Your task to perform on an android device: open a new tab in the chrome app Image 0: 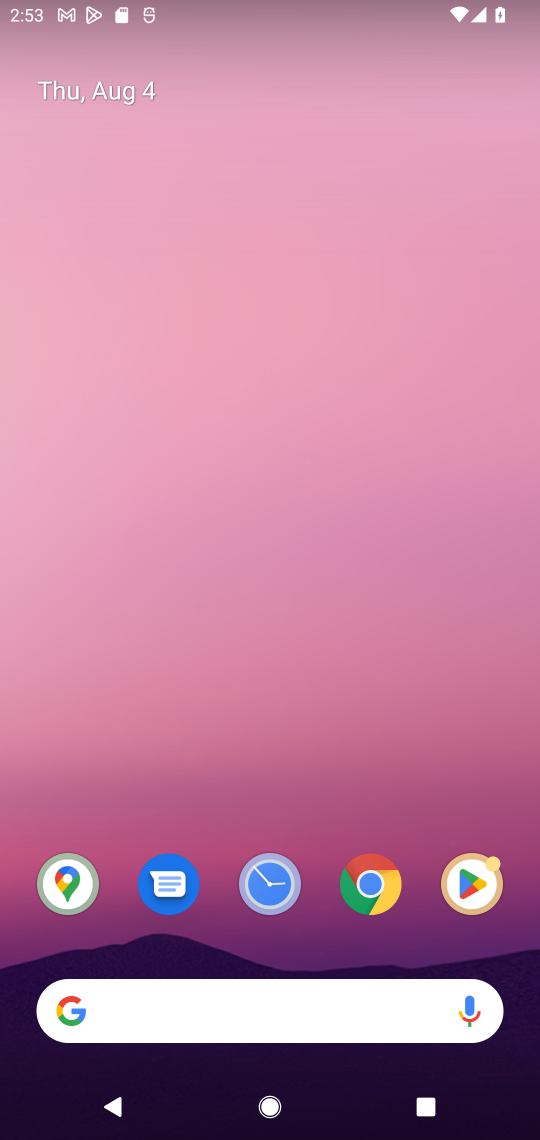
Step 0: click (361, 880)
Your task to perform on an android device: open a new tab in the chrome app Image 1: 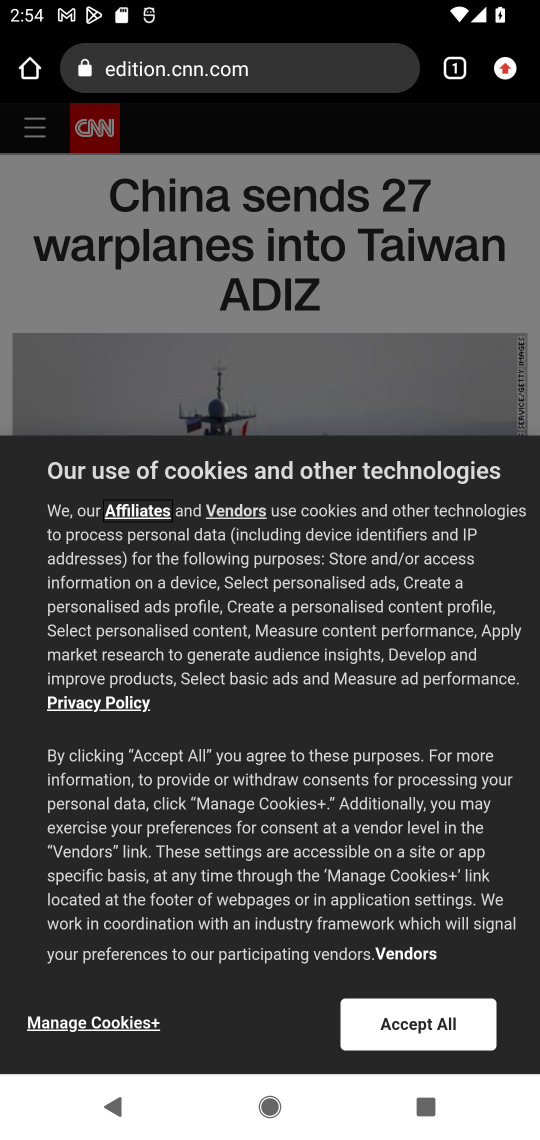
Step 1: click (497, 64)
Your task to perform on an android device: open a new tab in the chrome app Image 2: 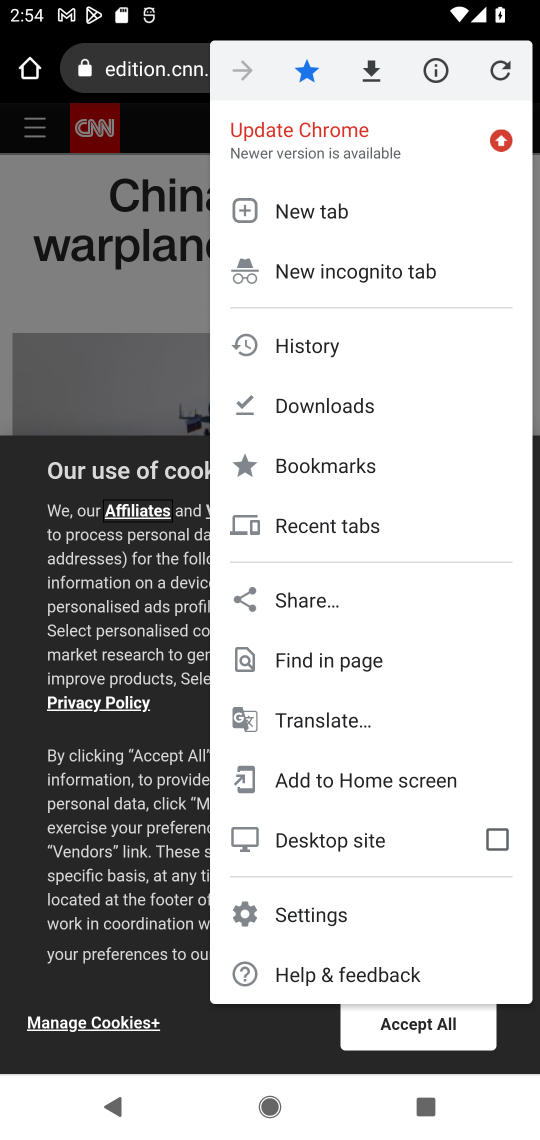
Step 2: click (346, 214)
Your task to perform on an android device: open a new tab in the chrome app Image 3: 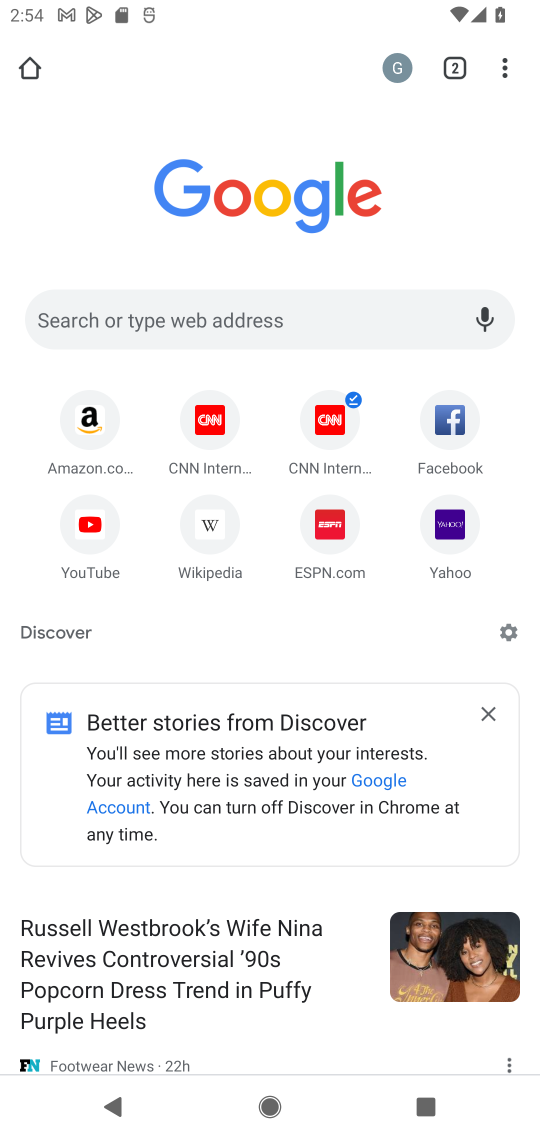
Step 3: click (429, 154)
Your task to perform on an android device: open a new tab in the chrome app Image 4: 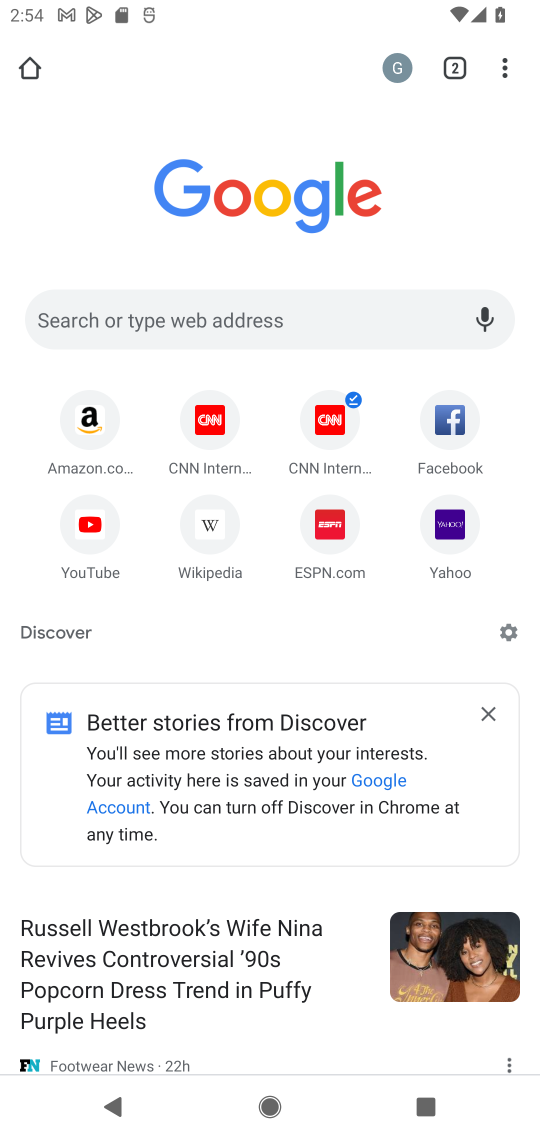
Step 4: task complete